Your task to perform on an android device: change timer sound Image 0: 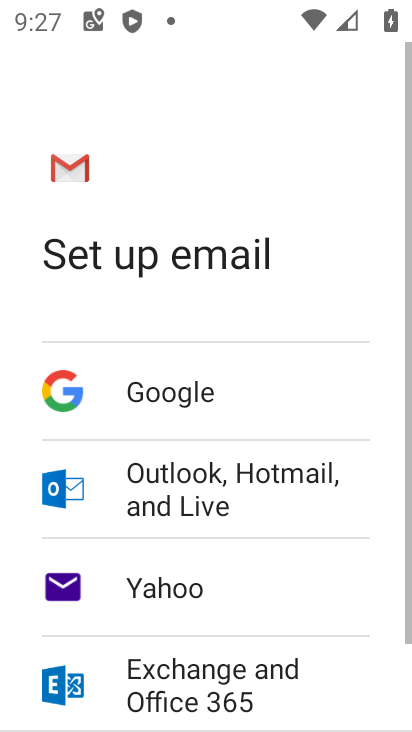
Step 0: press home button
Your task to perform on an android device: change timer sound Image 1: 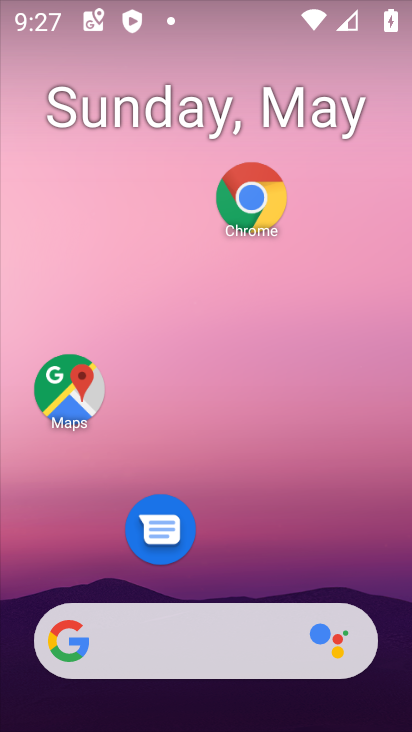
Step 1: drag from (295, 591) to (362, 77)
Your task to perform on an android device: change timer sound Image 2: 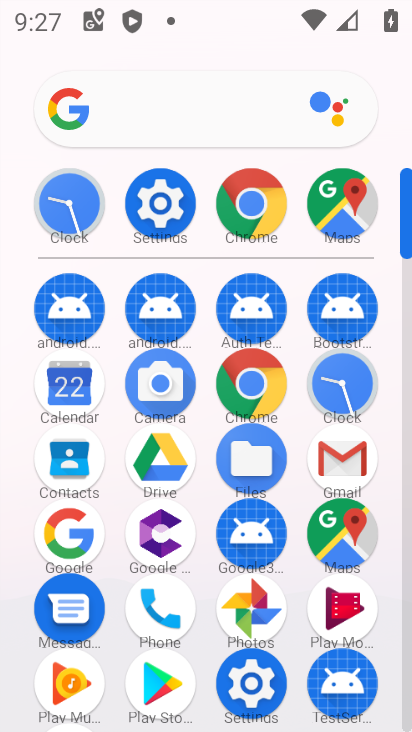
Step 2: click (335, 377)
Your task to perform on an android device: change timer sound Image 3: 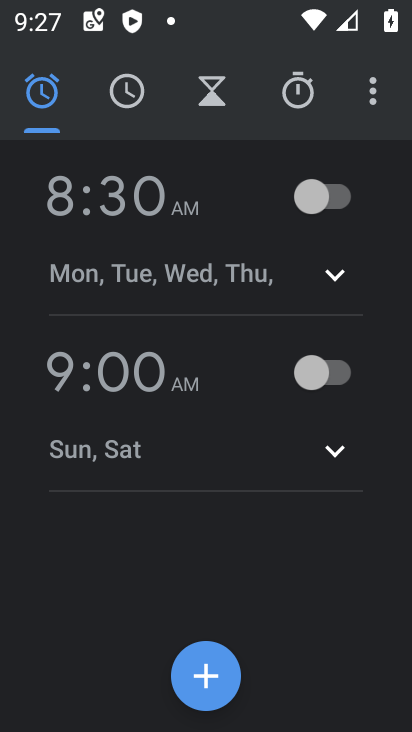
Step 3: click (375, 92)
Your task to perform on an android device: change timer sound Image 4: 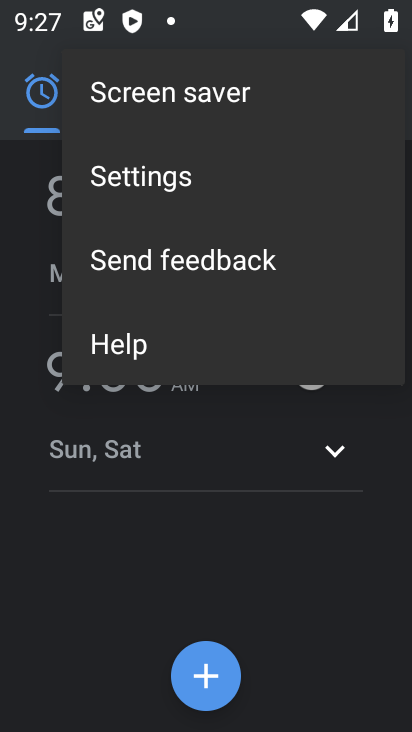
Step 4: click (151, 186)
Your task to perform on an android device: change timer sound Image 5: 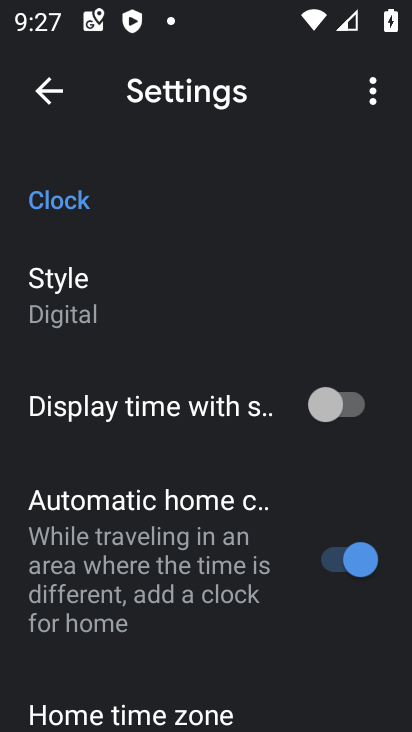
Step 5: drag from (201, 593) to (243, 284)
Your task to perform on an android device: change timer sound Image 6: 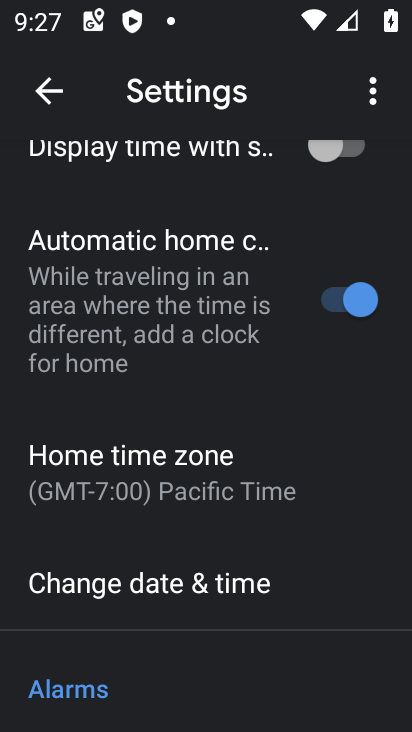
Step 6: drag from (207, 621) to (261, 349)
Your task to perform on an android device: change timer sound Image 7: 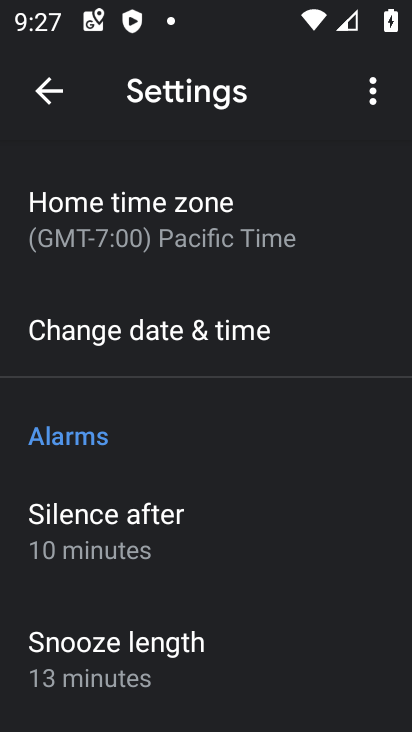
Step 7: drag from (207, 649) to (238, 438)
Your task to perform on an android device: change timer sound Image 8: 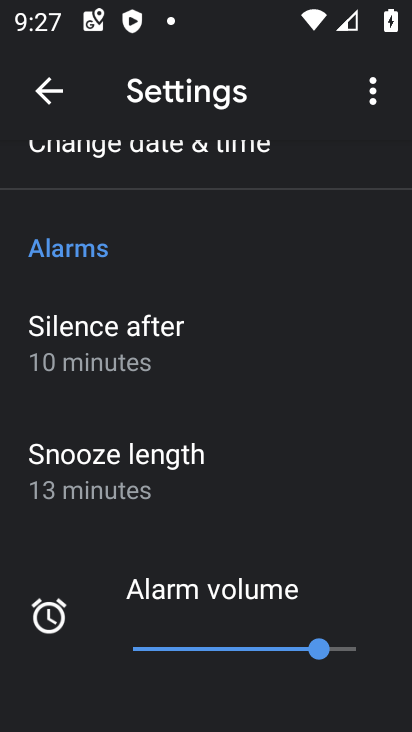
Step 8: drag from (122, 608) to (193, 385)
Your task to perform on an android device: change timer sound Image 9: 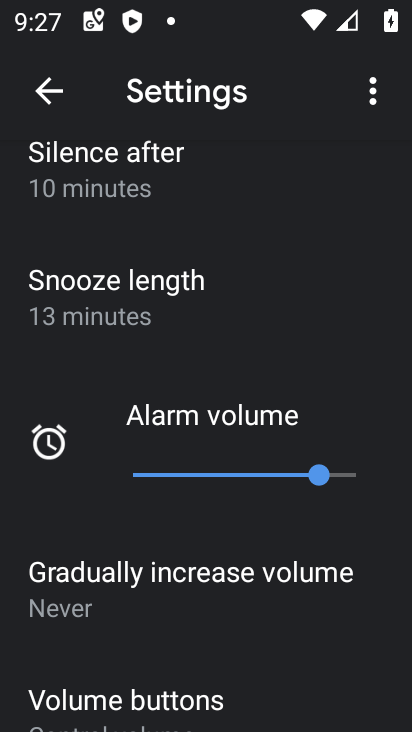
Step 9: drag from (138, 616) to (159, 349)
Your task to perform on an android device: change timer sound Image 10: 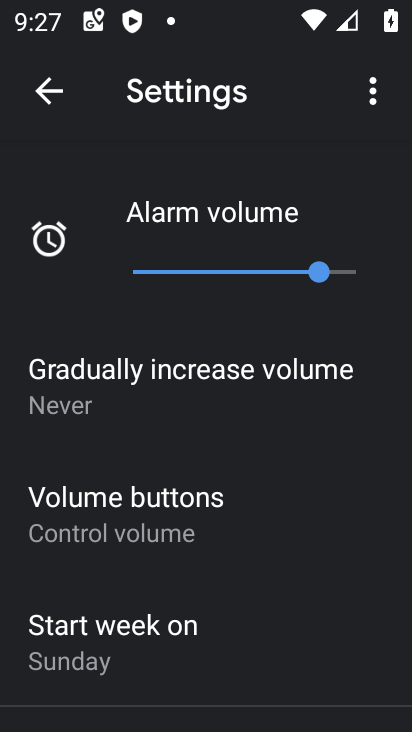
Step 10: drag from (162, 631) to (193, 409)
Your task to perform on an android device: change timer sound Image 11: 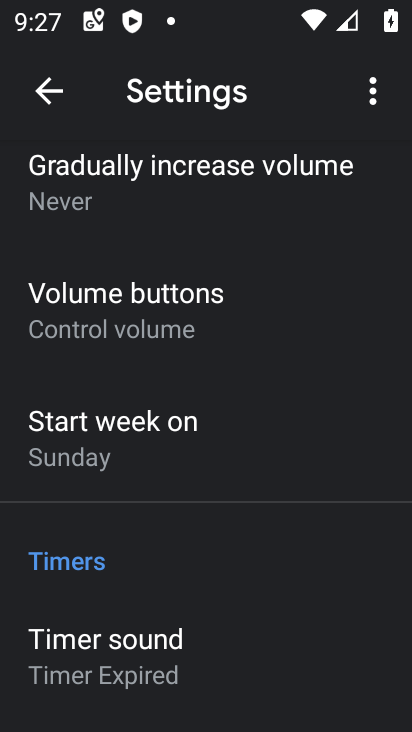
Step 11: click (132, 659)
Your task to perform on an android device: change timer sound Image 12: 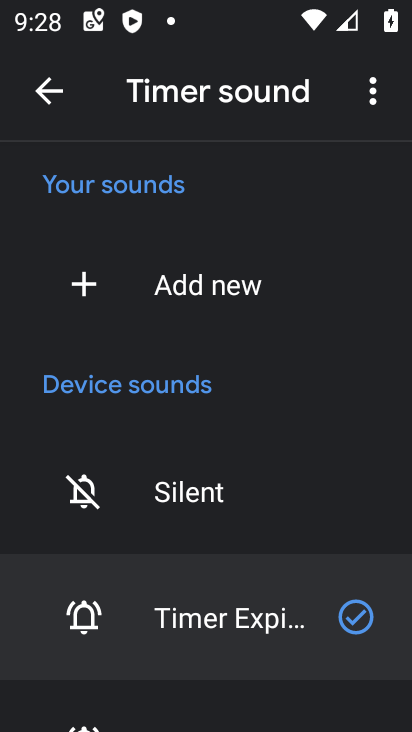
Step 12: drag from (215, 503) to (244, 406)
Your task to perform on an android device: change timer sound Image 13: 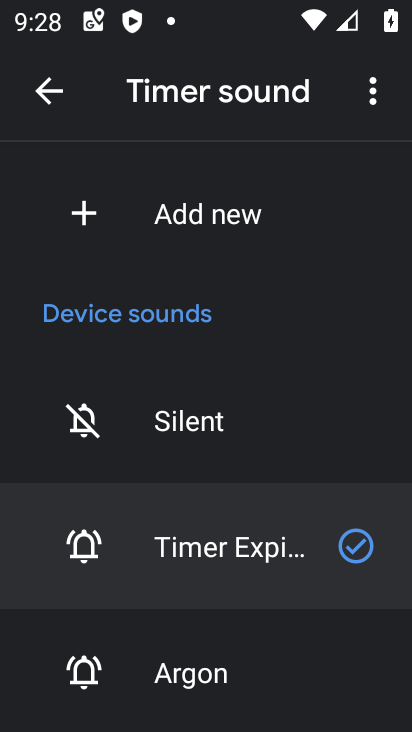
Step 13: click (200, 671)
Your task to perform on an android device: change timer sound Image 14: 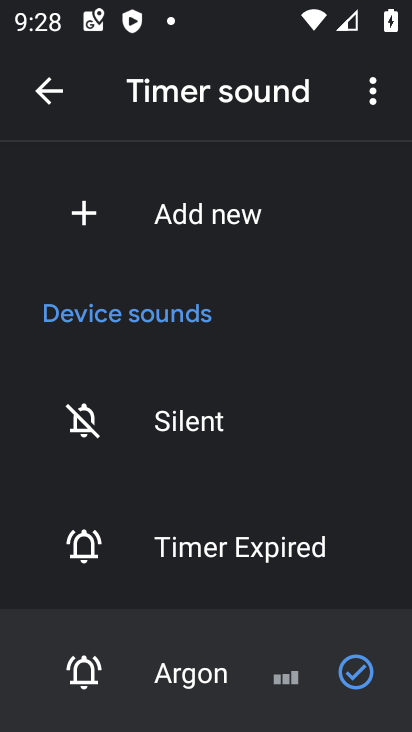
Step 14: task complete